Your task to perform on an android device: move a message to another label in the gmail app Image 0: 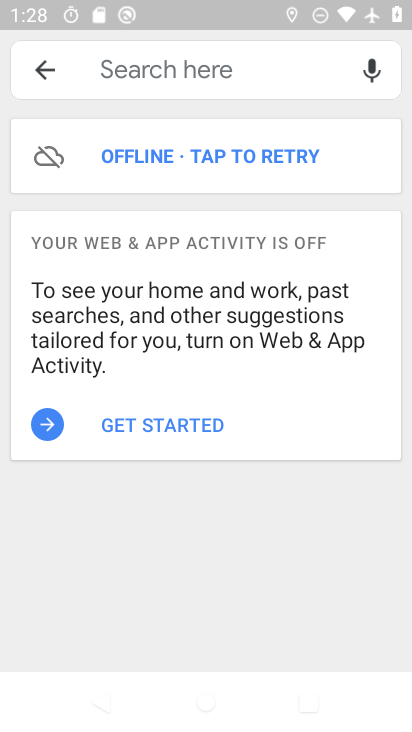
Step 0: press home button
Your task to perform on an android device: move a message to another label in the gmail app Image 1: 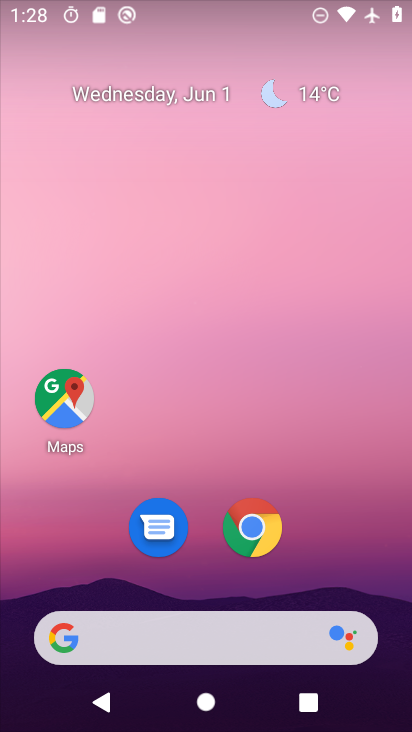
Step 1: drag from (216, 592) to (205, 12)
Your task to perform on an android device: move a message to another label in the gmail app Image 2: 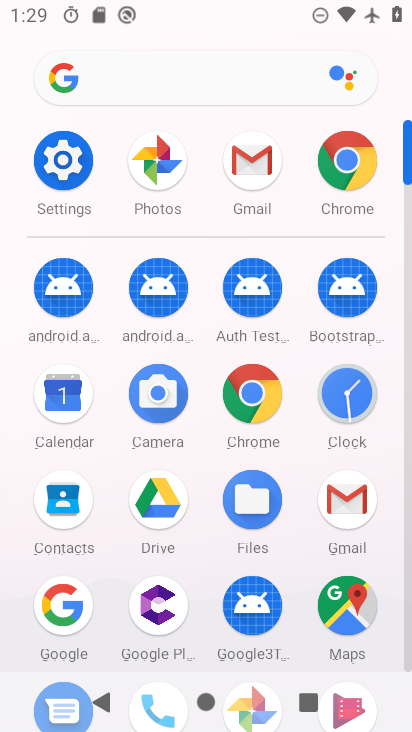
Step 2: click (361, 496)
Your task to perform on an android device: move a message to another label in the gmail app Image 3: 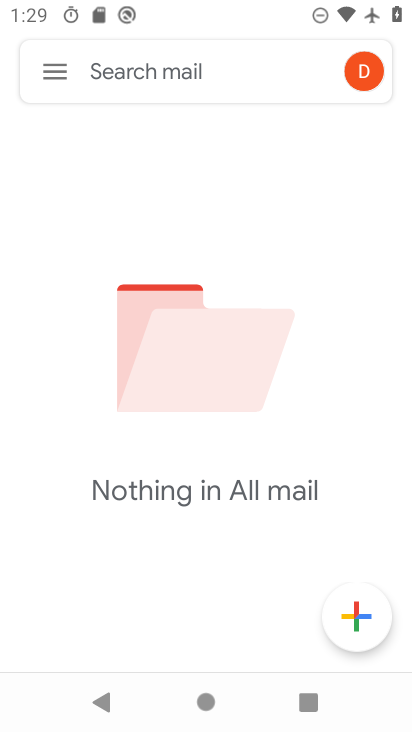
Step 3: task complete